Your task to perform on an android device: open a bookmark in the chrome app Image 0: 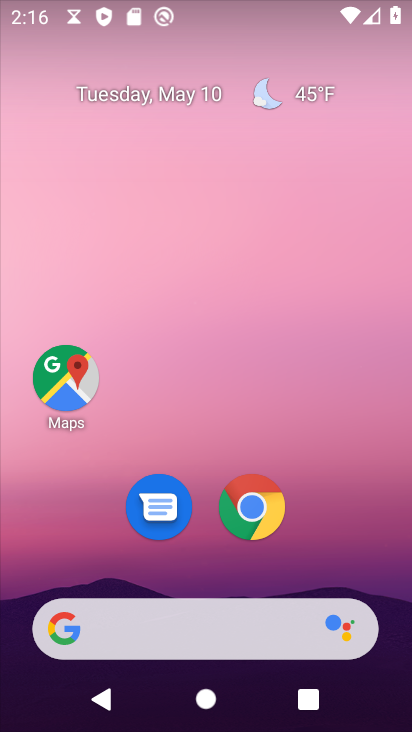
Step 0: click (249, 516)
Your task to perform on an android device: open a bookmark in the chrome app Image 1: 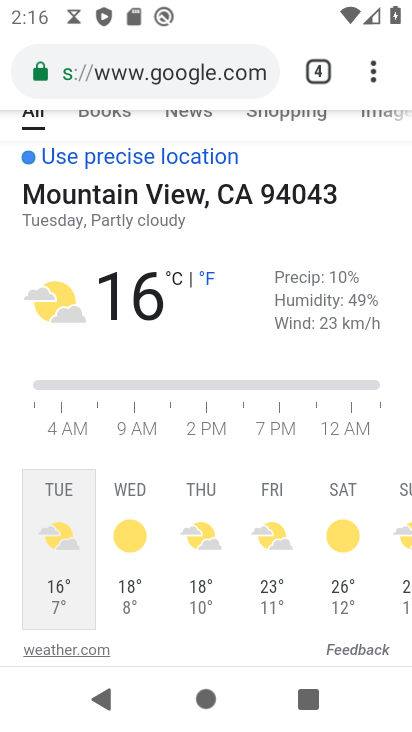
Step 1: task complete